Your task to perform on an android device: allow cookies in the chrome app Image 0: 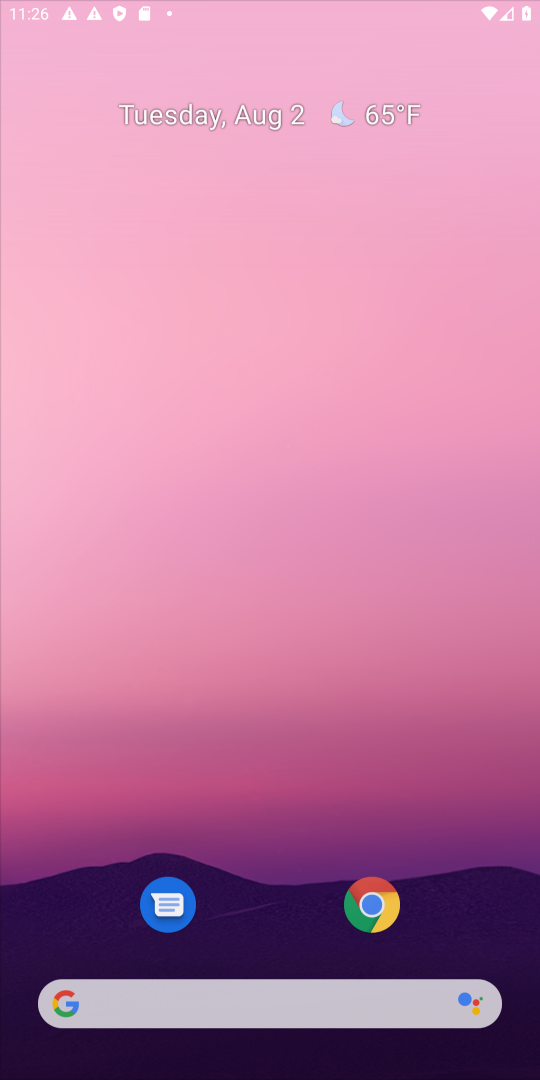
Step 0: press home button
Your task to perform on an android device: allow cookies in the chrome app Image 1: 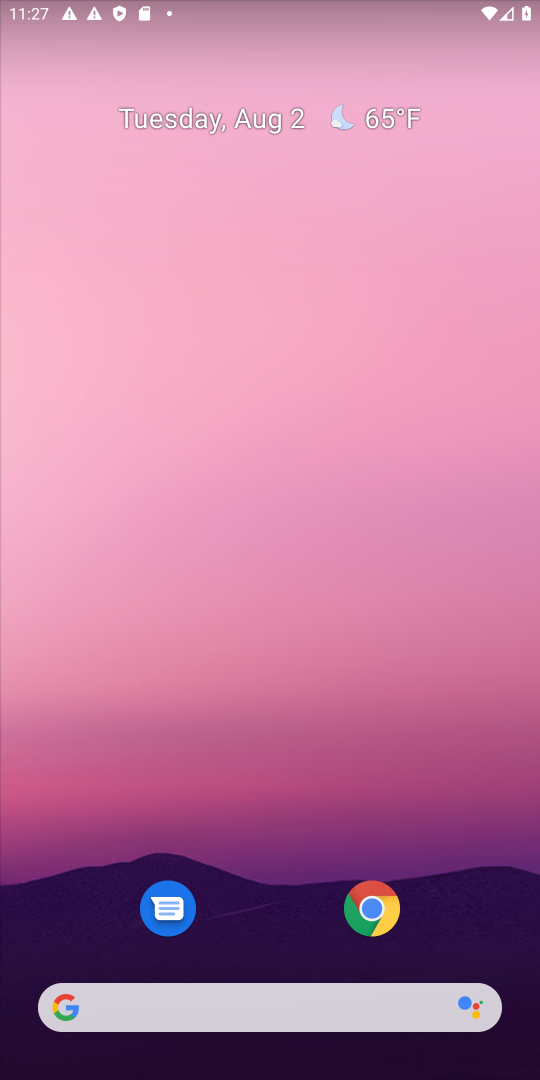
Step 1: click (369, 901)
Your task to perform on an android device: allow cookies in the chrome app Image 2: 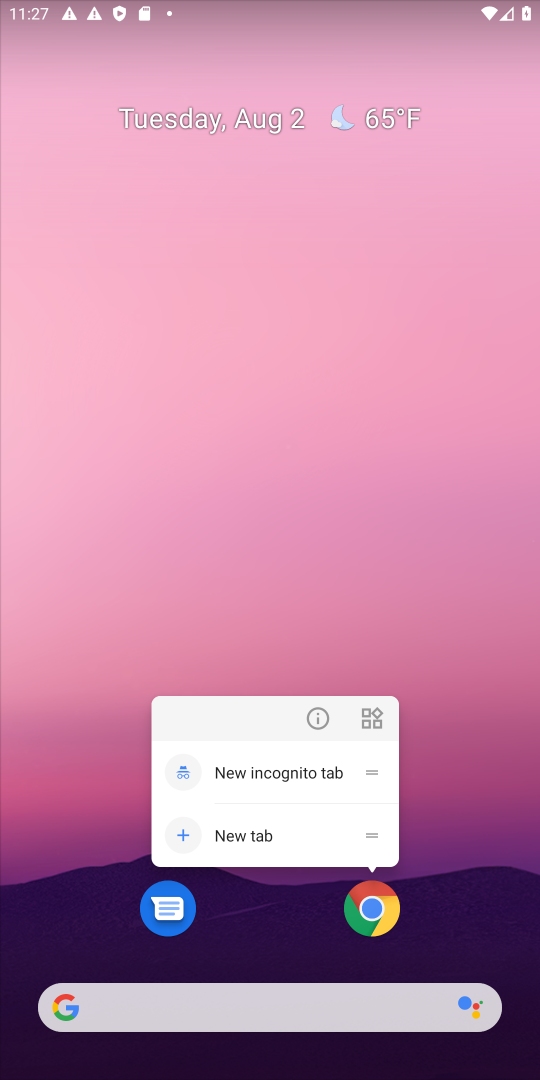
Step 2: click (370, 896)
Your task to perform on an android device: allow cookies in the chrome app Image 3: 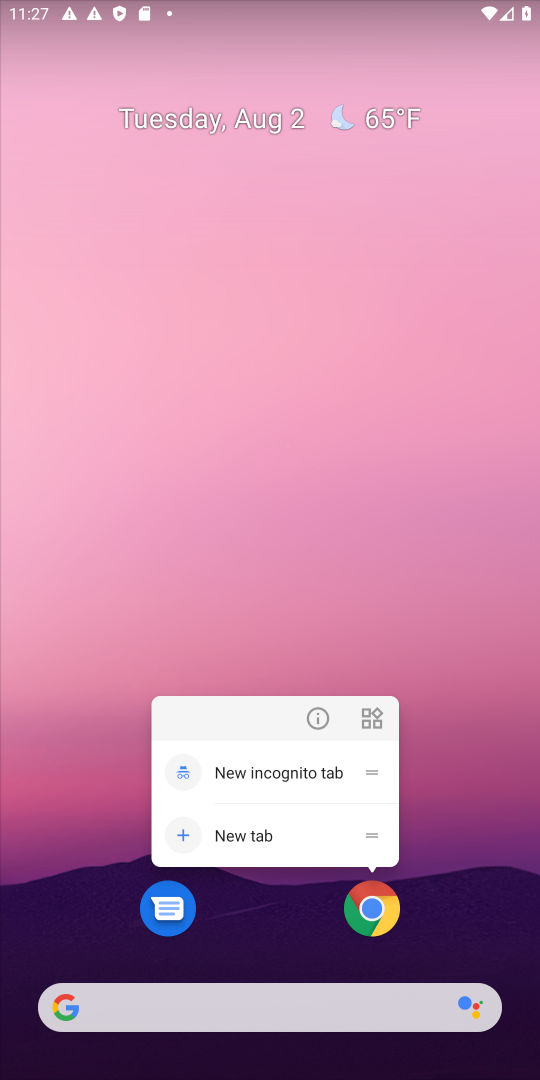
Step 3: click (370, 902)
Your task to perform on an android device: allow cookies in the chrome app Image 4: 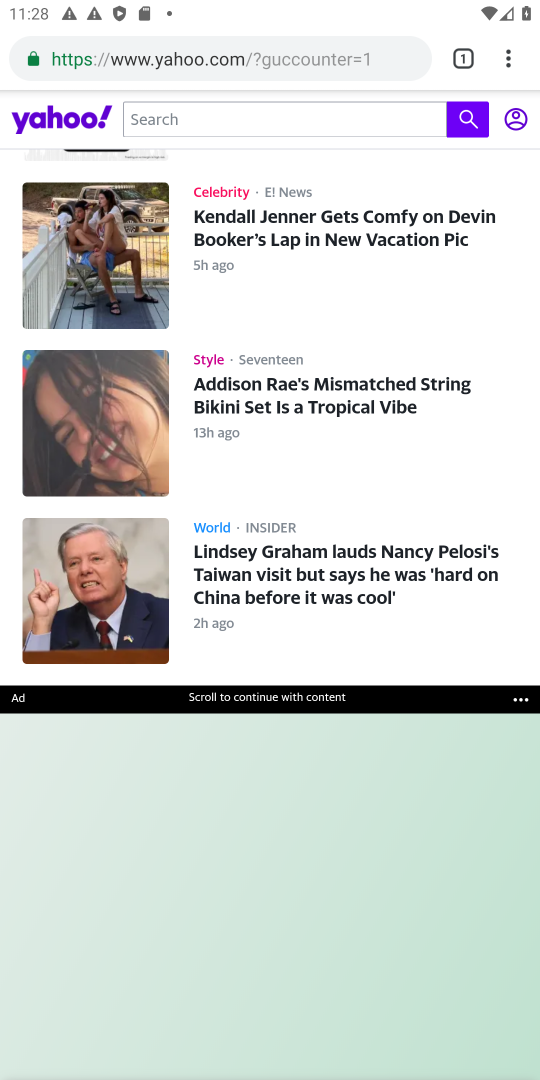
Step 4: click (506, 43)
Your task to perform on an android device: allow cookies in the chrome app Image 5: 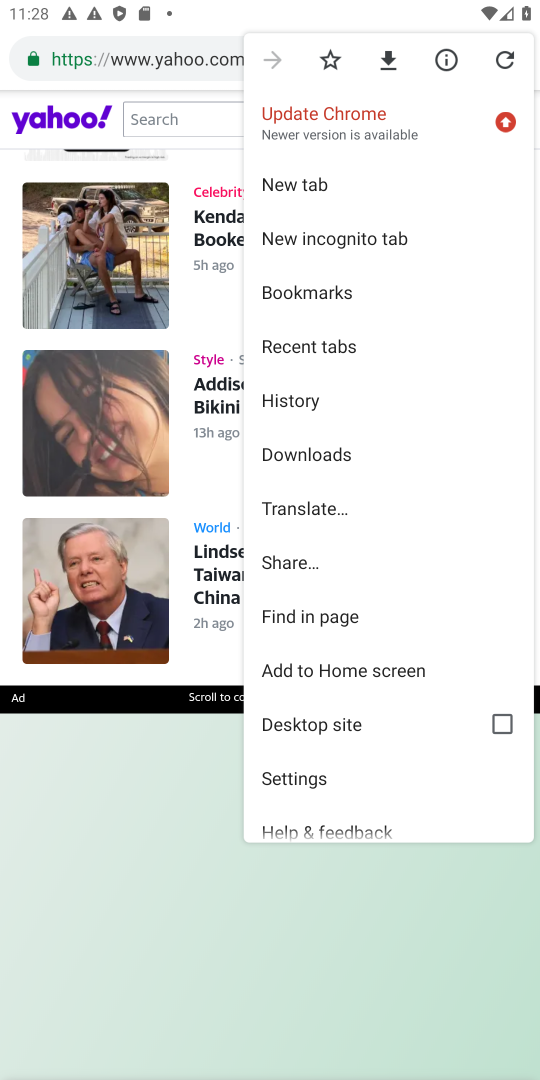
Step 5: click (327, 778)
Your task to perform on an android device: allow cookies in the chrome app Image 6: 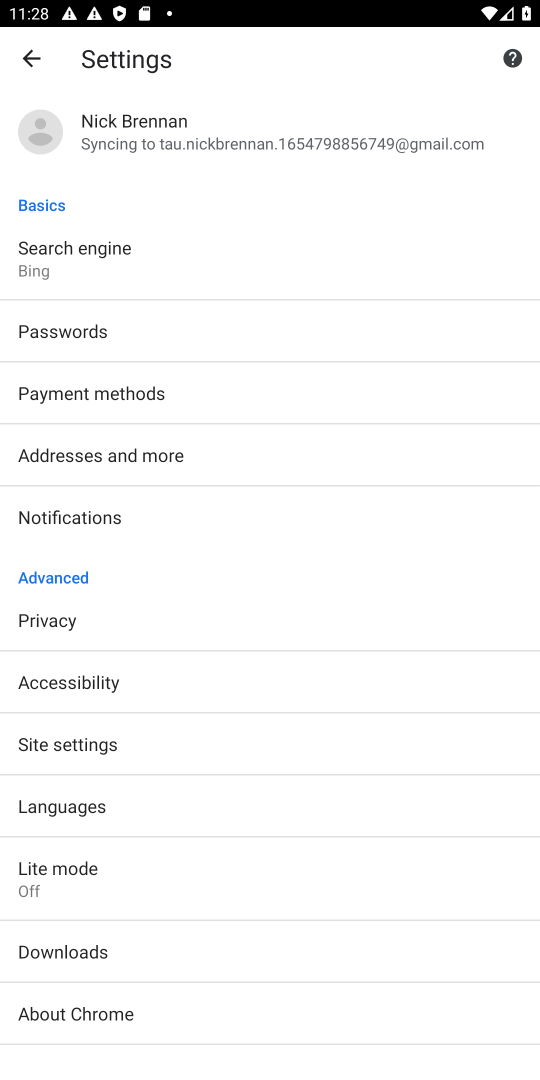
Step 6: click (129, 740)
Your task to perform on an android device: allow cookies in the chrome app Image 7: 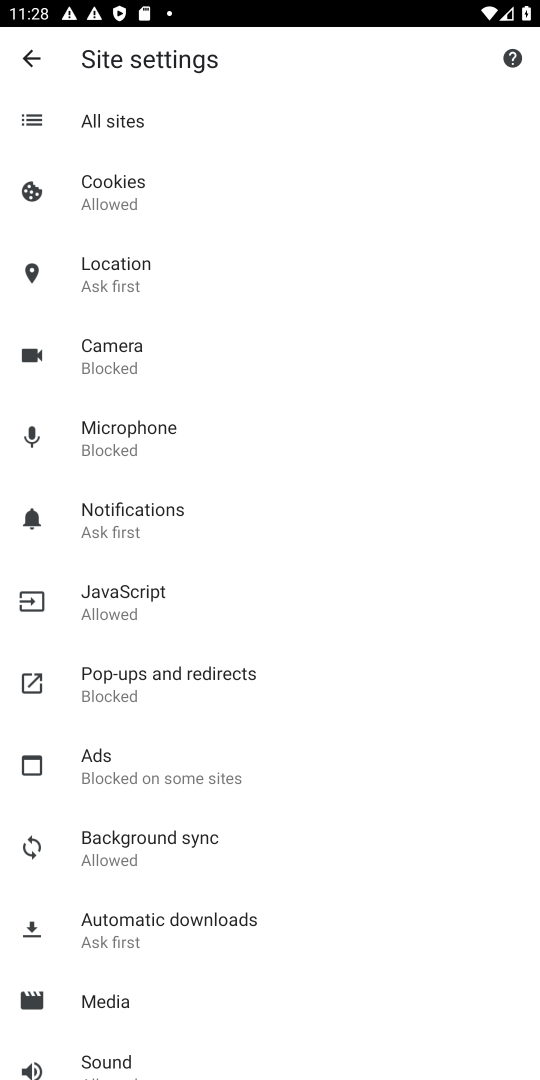
Step 7: click (138, 191)
Your task to perform on an android device: allow cookies in the chrome app Image 8: 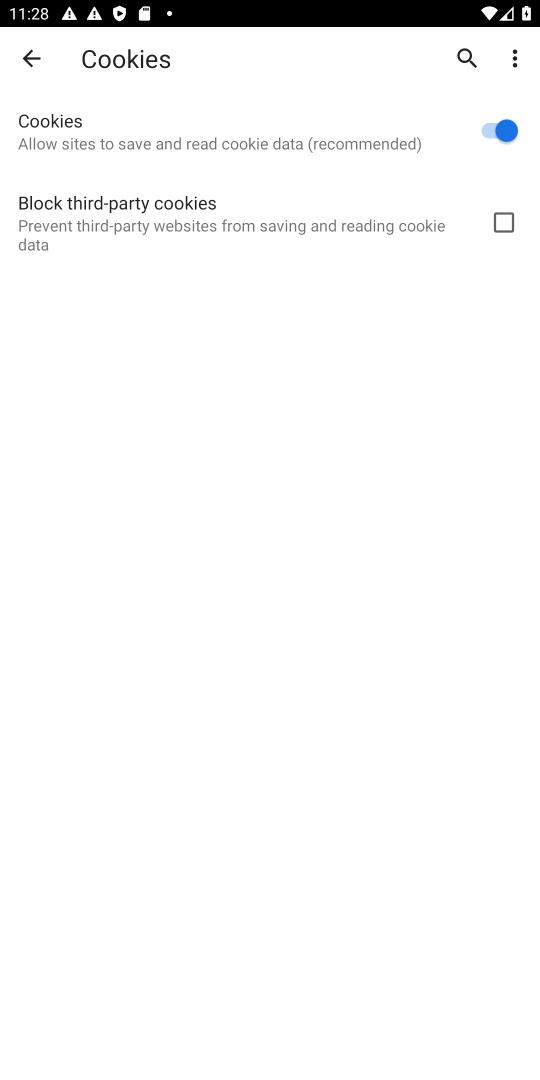
Step 8: task complete